Your task to perform on an android device: turn on location history Image 0: 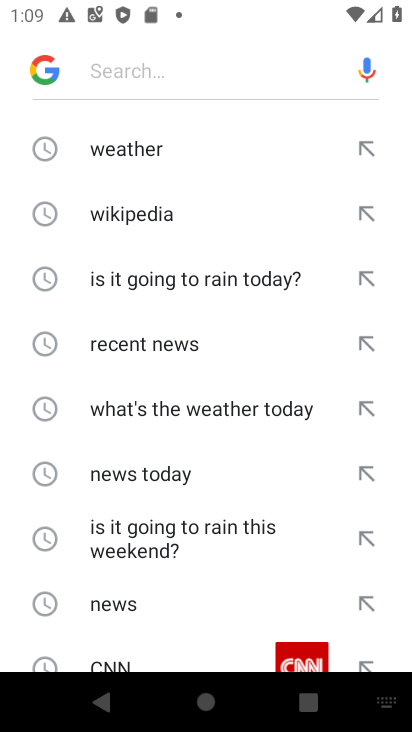
Step 0: press home button
Your task to perform on an android device: turn on location history Image 1: 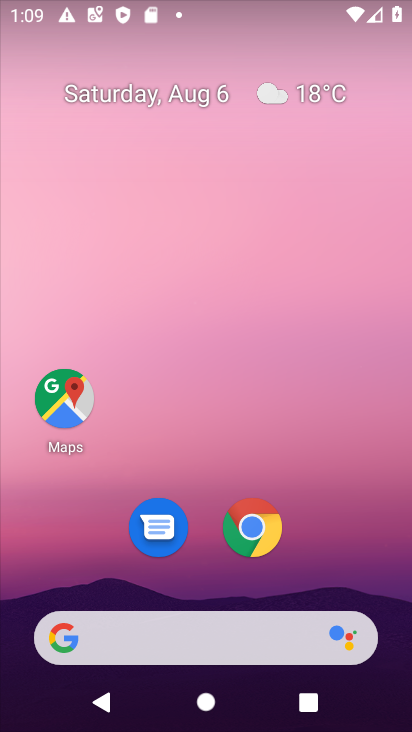
Step 1: drag from (160, 143) to (159, 65)
Your task to perform on an android device: turn on location history Image 2: 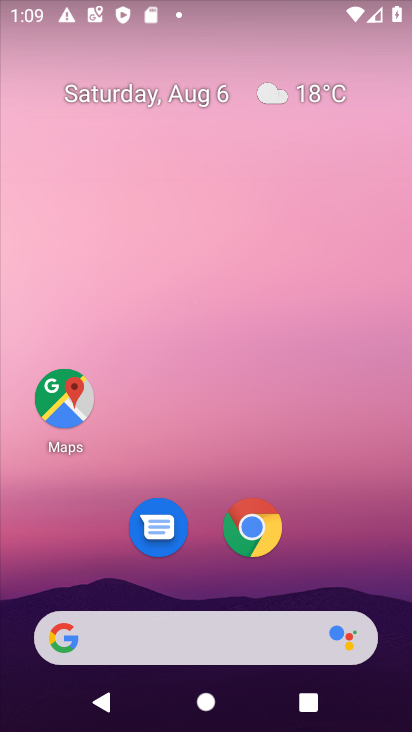
Step 2: drag from (208, 453) to (220, 4)
Your task to perform on an android device: turn on location history Image 3: 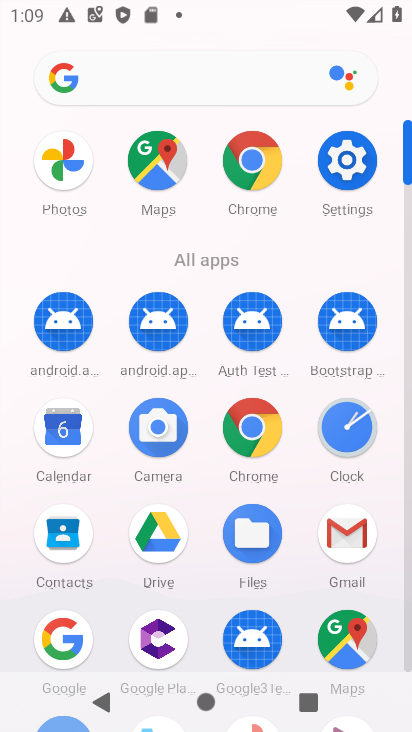
Step 3: drag from (276, 262) to (289, 55)
Your task to perform on an android device: turn on location history Image 4: 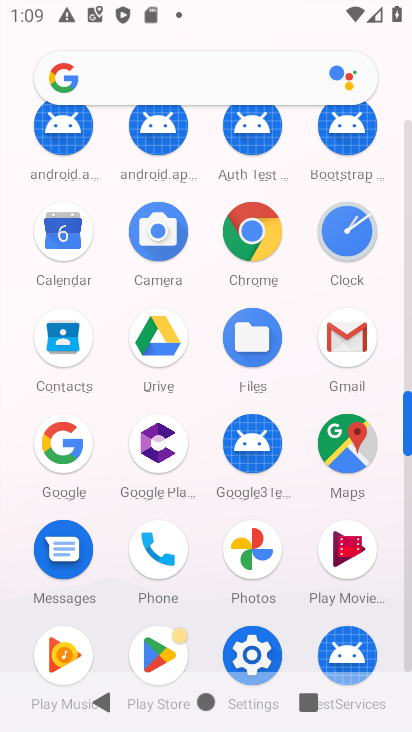
Step 4: click (270, 648)
Your task to perform on an android device: turn on location history Image 5: 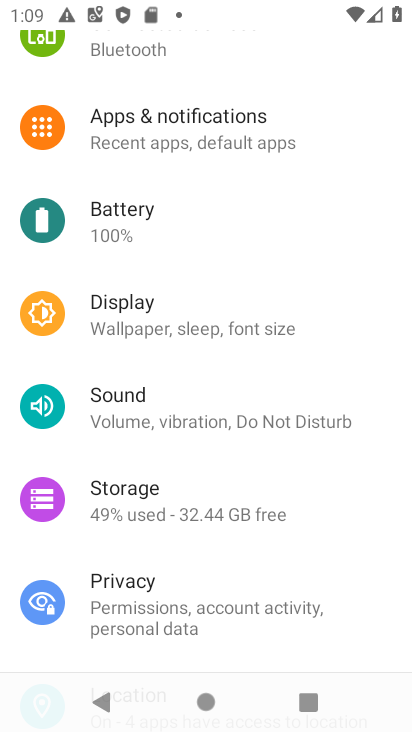
Step 5: drag from (209, 551) to (201, 217)
Your task to perform on an android device: turn on location history Image 6: 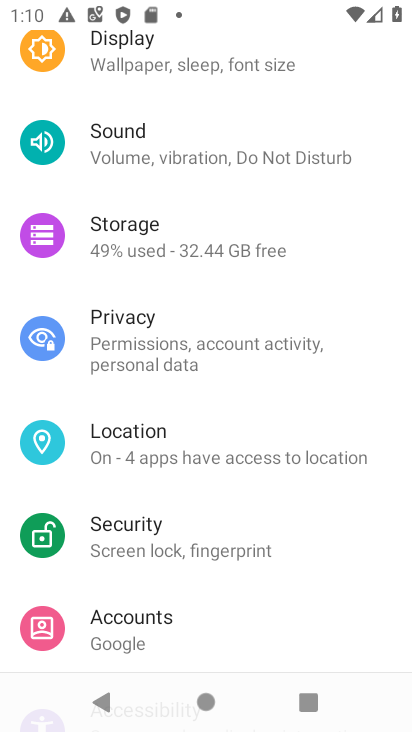
Step 6: click (218, 454)
Your task to perform on an android device: turn on location history Image 7: 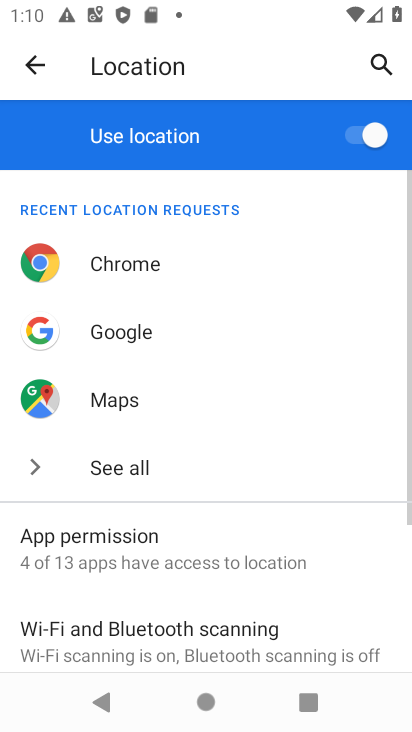
Step 7: drag from (183, 587) to (203, 182)
Your task to perform on an android device: turn on location history Image 8: 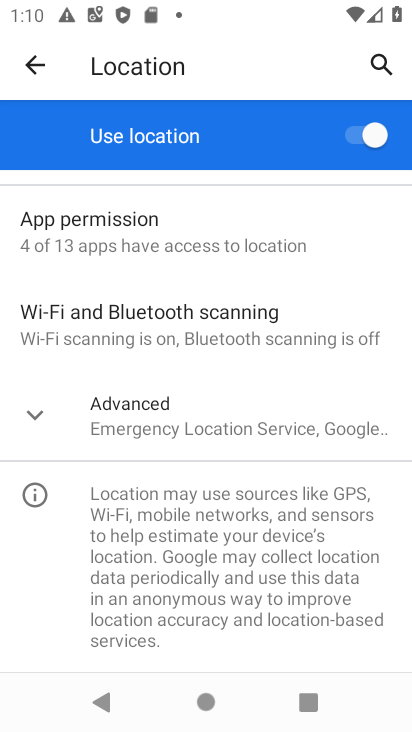
Step 8: click (182, 424)
Your task to perform on an android device: turn on location history Image 9: 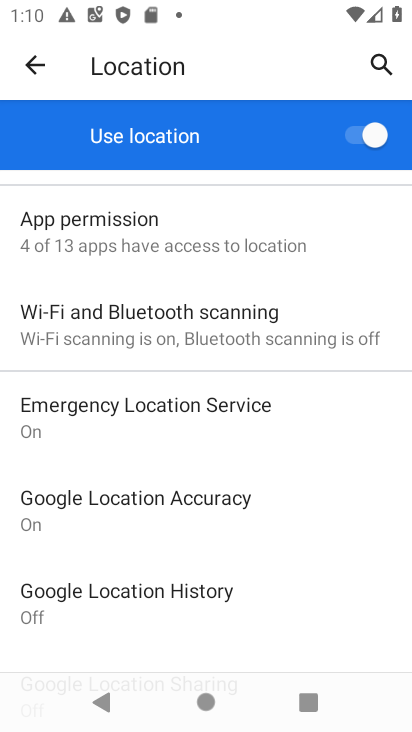
Step 9: click (222, 603)
Your task to perform on an android device: turn on location history Image 10: 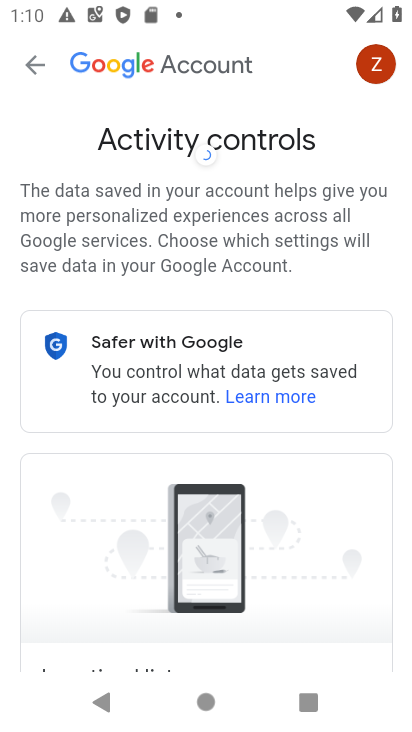
Step 10: task complete